Your task to perform on an android device: Open sound settings Image 0: 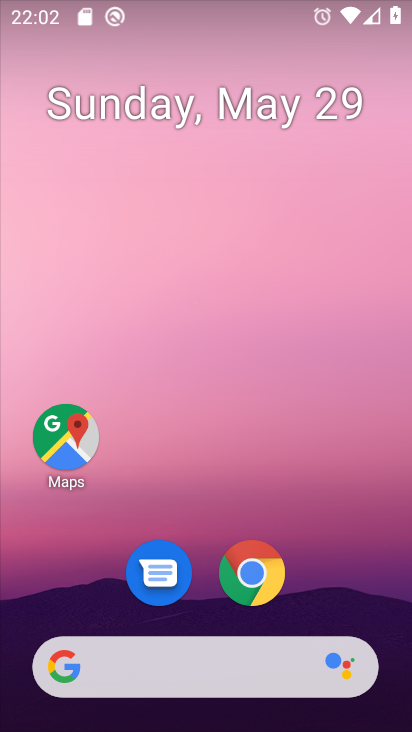
Step 0: drag from (236, 518) to (268, 26)
Your task to perform on an android device: Open sound settings Image 1: 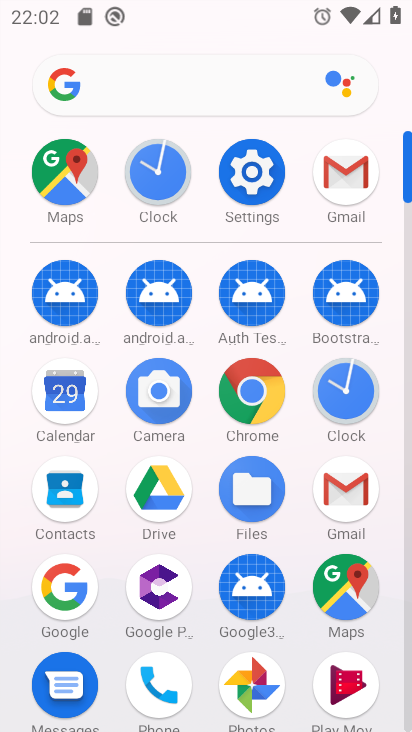
Step 1: click (247, 158)
Your task to perform on an android device: Open sound settings Image 2: 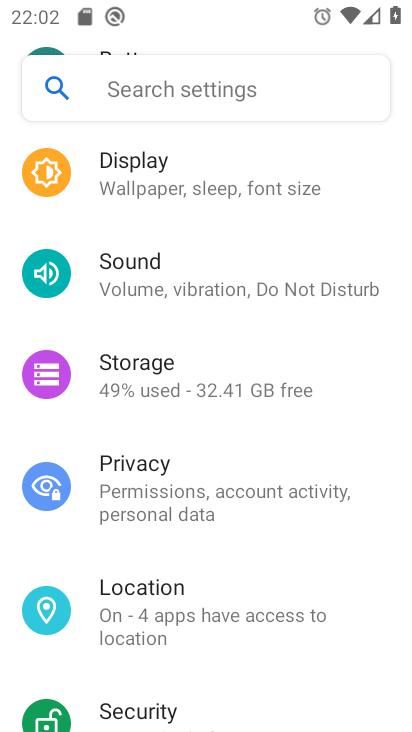
Step 2: click (216, 272)
Your task to perform on an android device: Open sound settings Image 3: 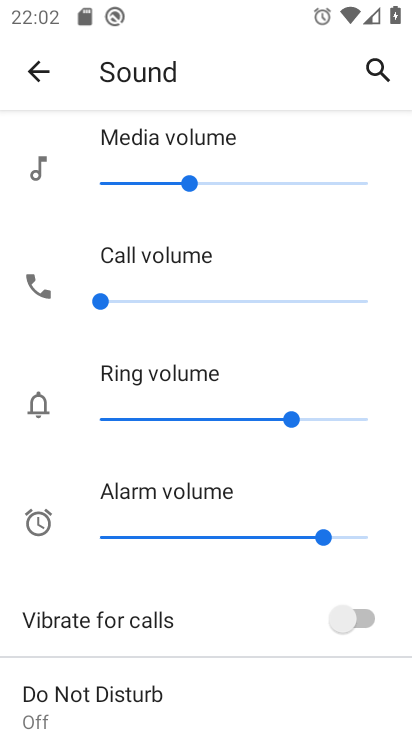
Step 3: task complete